Your task to perform on an android device: allow cookies in the chrome app Image 0: 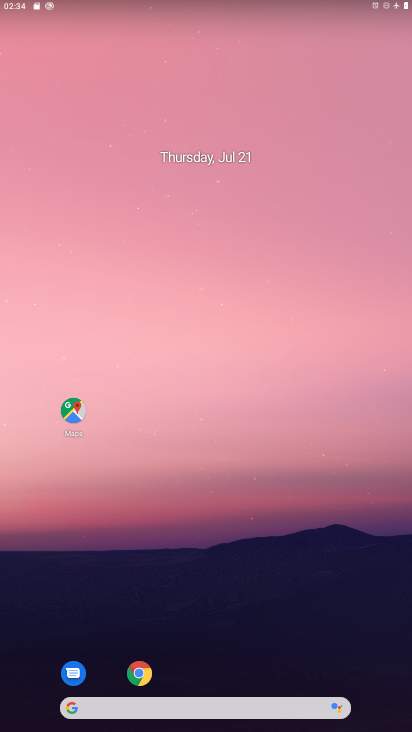
Step 0: drag from (275, 604) to (285, 15)
Your task to perform on an android device: allow cookies in the chrome app Image 1: 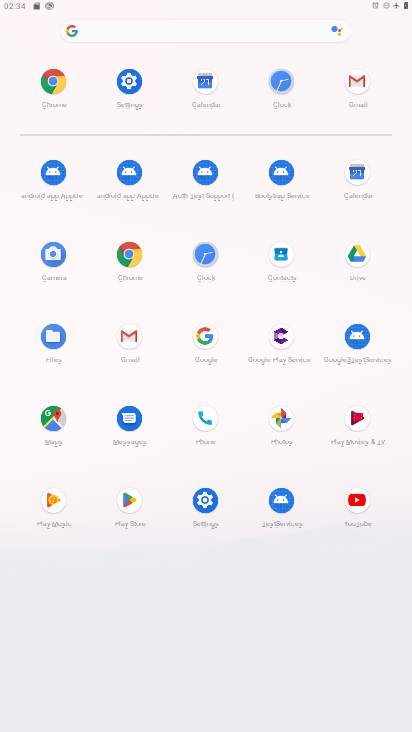
Step 1: click (128, 244)
Your task to perform on an android device: allow cookies in the chrome app Image 2: 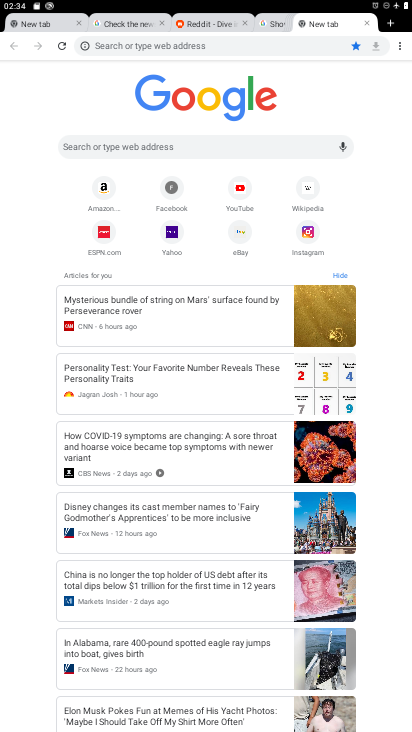
Step 2: click (403, 45)
Your task to perform on an android device: allow cookies in the chrome app Image 3: 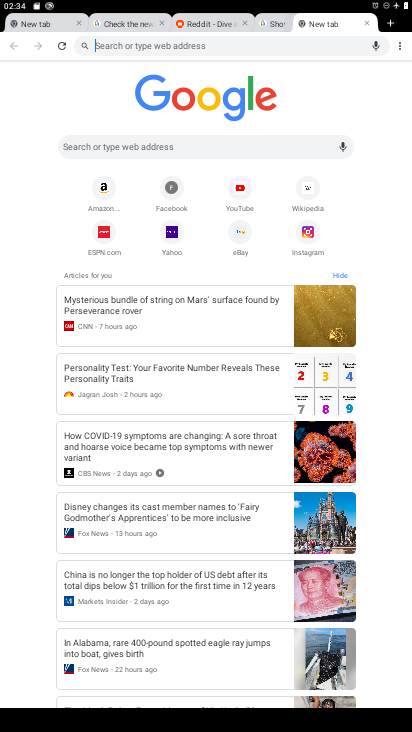
Step 3: click (406, 40)
Your task to perform on an android device: allow cookies in the chrome app Image 4: 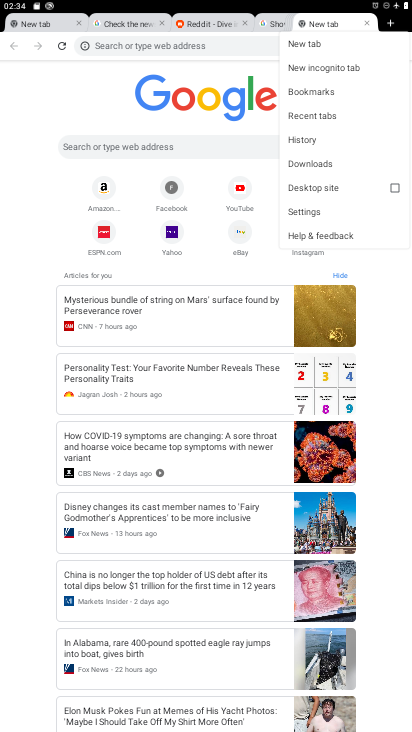
Step 4: click (311, 206)
Your task to perform on an android device: allow cookies in the chrome app Image 5: 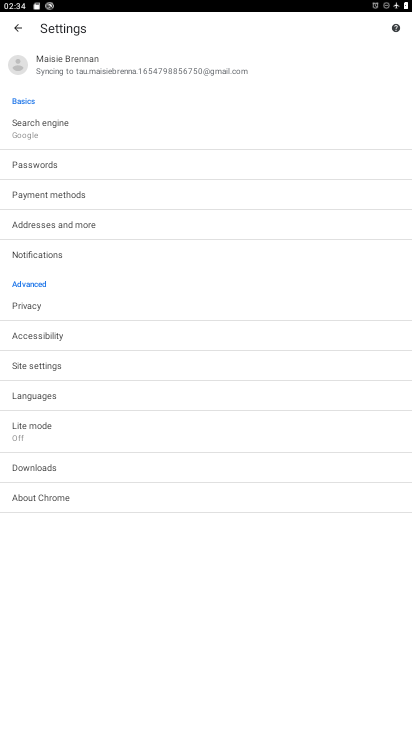
Step 5: drag from (28, 301) to (0, 335)
Your task to perform on an android device: allow cookies in the chrome app Image 6: 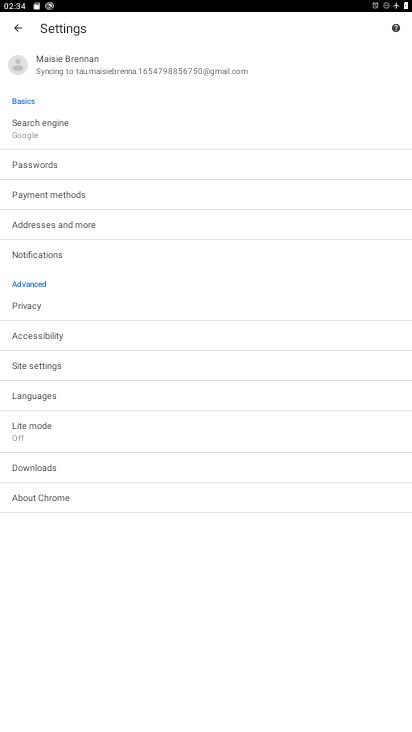
Step 6: click (54, 330)
Your task to perform on an android device: allow cookies in the chrome app Image 7: 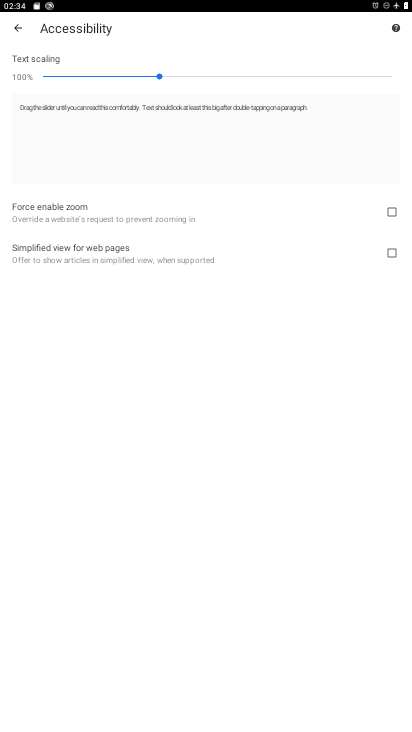
Step 7: click (21, 32)
Your task to perform on an android device: allow cookies in the chrome app Image 8: 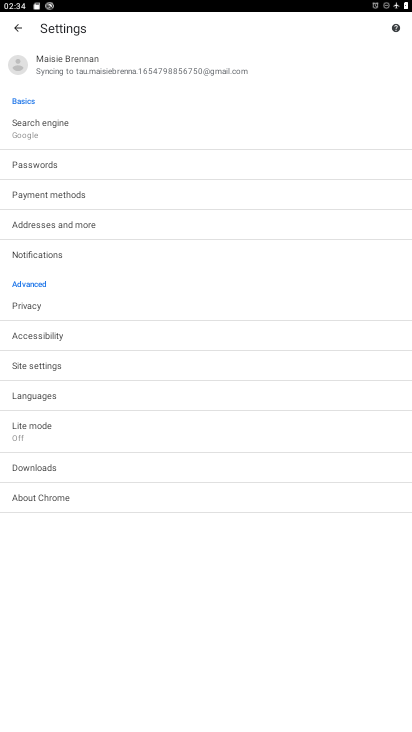
Step 8: click (93, 362)
Your task to perform on an android device: allow cookies in the chrome app Image 9: 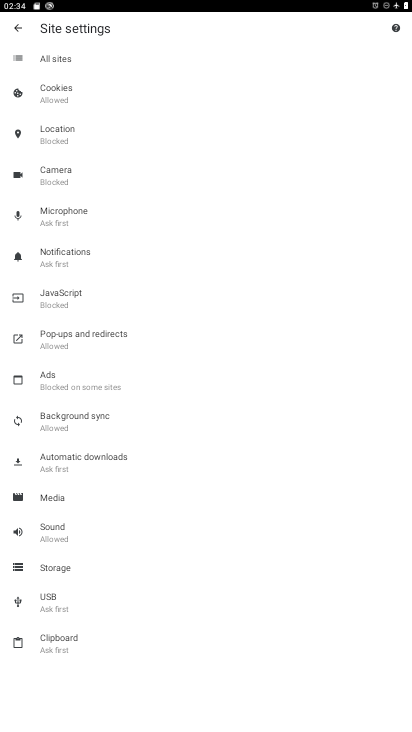
Step 9: click (44, 92)
Your task to perform on an android device: allow cookies in the chrome app Image 10: 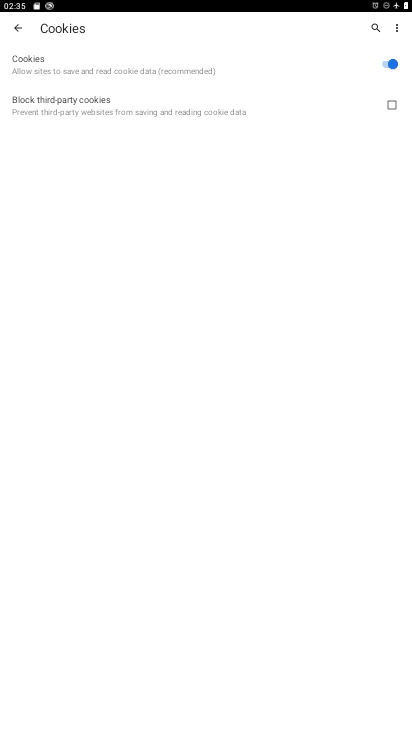
Step 10: task complete